Your task to perform on an android device: turn on translation in the chrome app Image 0: 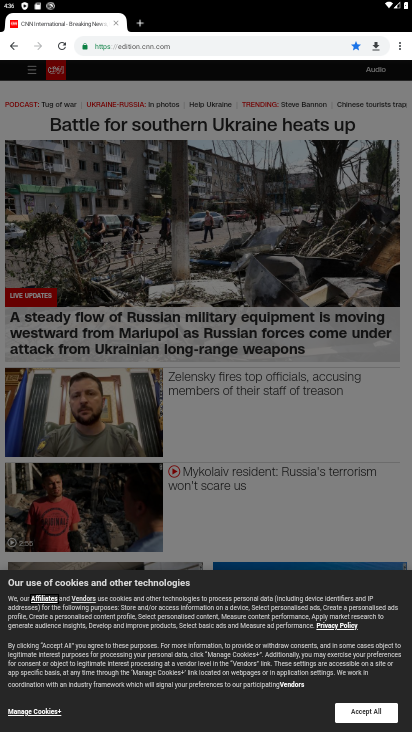
Step 0: press home button
Your task to perform on an android device: turn on translation in the chrome app Image 1: 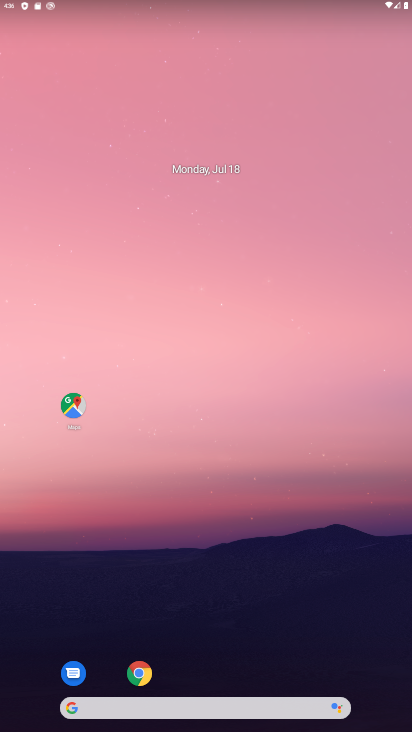
Step 1: drag from (252, 557) to (326, 188)
Your task to perform on an android device: turn on translation in the chrome app Image 2: 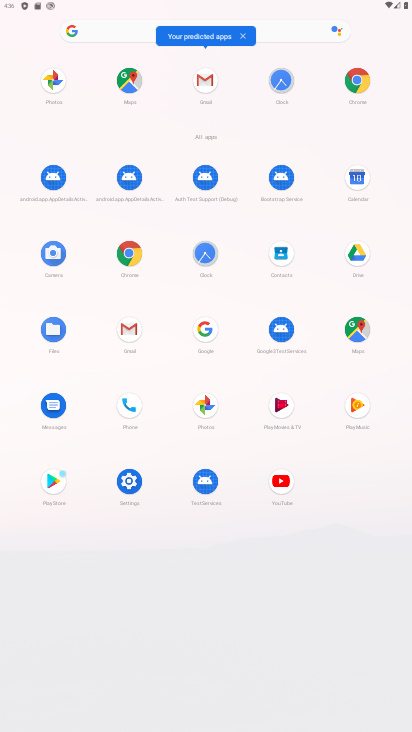
Step 2: click (125, 246)
Your task to perform on an android device: turn on translation in the chrome app Image 3: 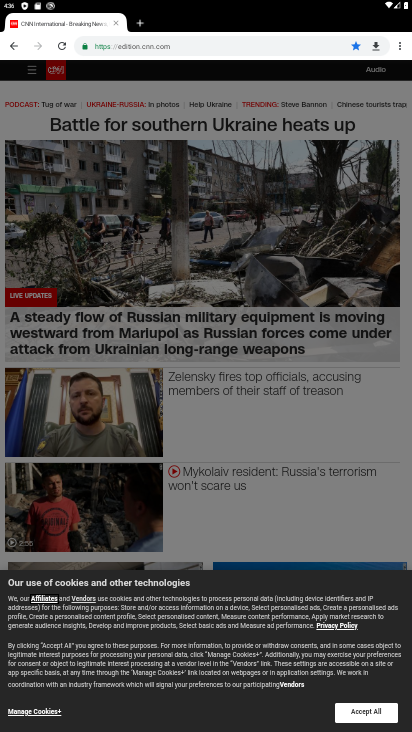
Step 3: drag from (402, 47) to (335, 278)
Your task to perform on an android device: turn on translation in the chrome app Image 4: 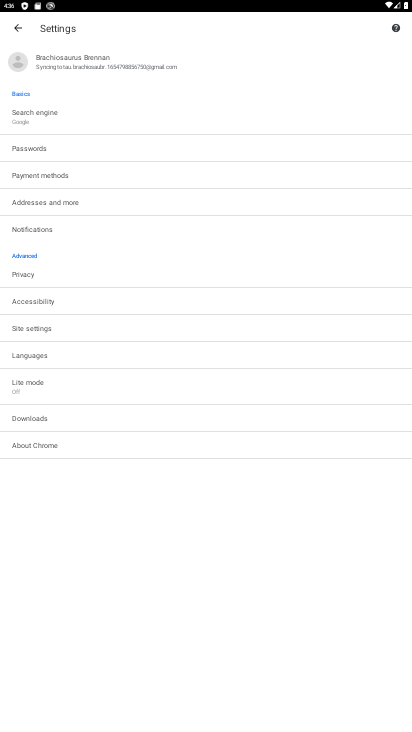
Step 4: click (95, 358)
Your task to perform on an android device: turn on translation in the chrome app Image 5: 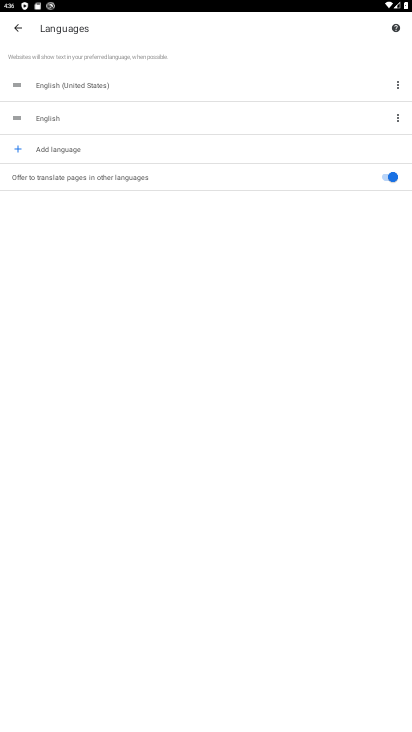
Step 5: task complete